Your task to perform on an android device: Open the Play Movies app and select the watchlist tab. Image 0: 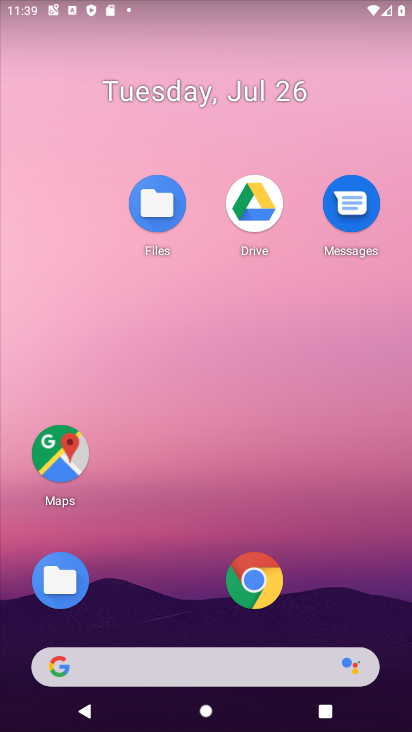
Step 0: drag from (137, 618) to (176, 156)
Your task to perform on an android device: Open the Play Movies app and select the watchlist tab. Image 1: 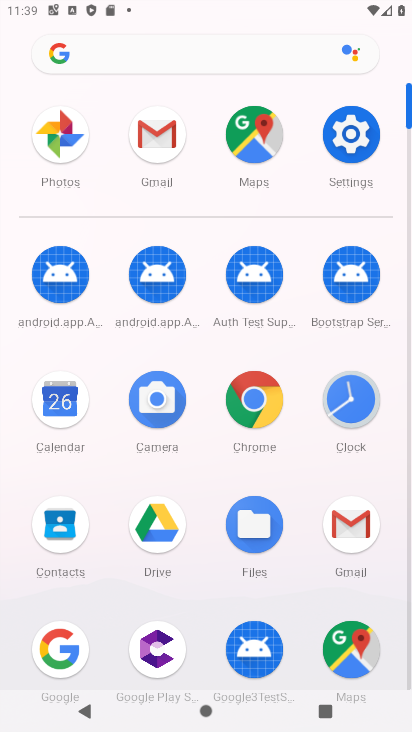
Step 1: drag from (193, 578) to (196, 306)
Your task to perform on an android device: Open the Play Movies app and select the watchlist tab. Image 2: 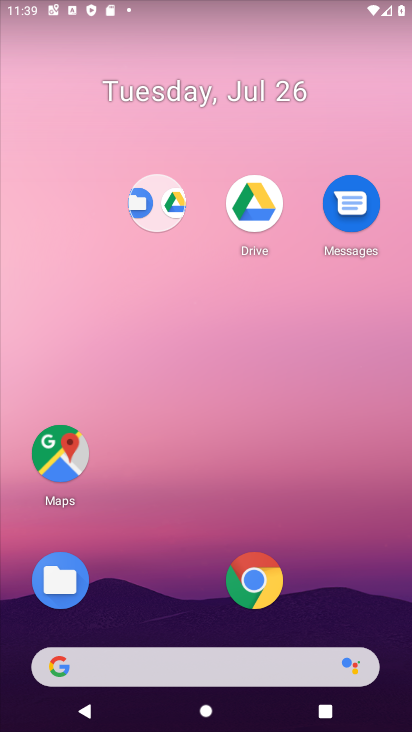
Step 2: drag from (156, 595) to (119, 48)
Your task to perform on an android device: Open the Play Movies app and select the watchlist tab. Image 3: 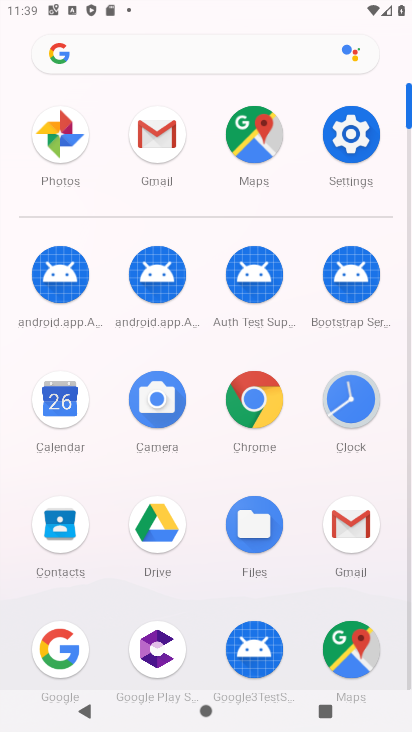
Step 3: drag from (213, 447) to (217, 126)
Your task to perform on an android device: Open the Play Movies app and select the watchlist tab. Image 4: 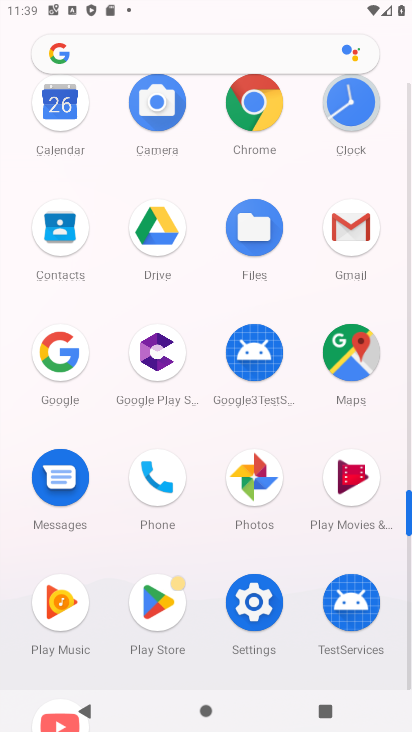
Step 4: click (323, 483)
Your task to perform on an android device: Open the Play Movies app and select the watchlist tab. Image 5: 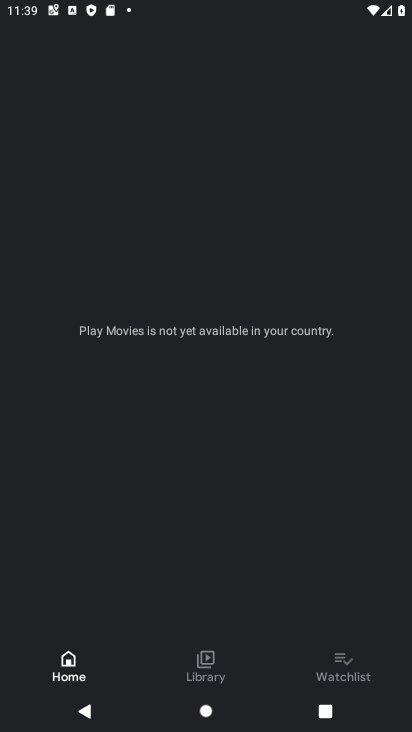
Step 5: click (337, 648)
Your task to perform on an android device: Open the Play Movies app and select the watchlist tab. Image 6: 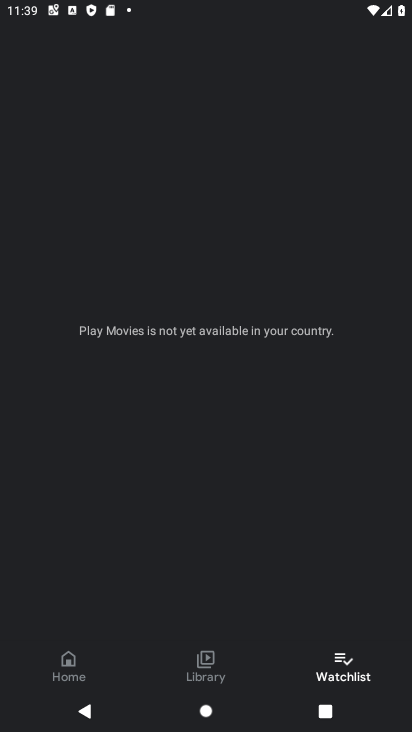
Step 6: task complete